Your task to perform on an android device: What's the weather going to be tomorrow? Image 0: 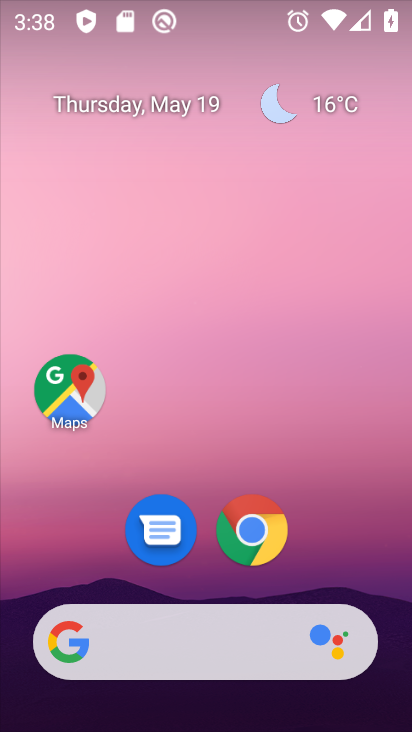
Step 0: drag from (341, 482) to (322, 78)
Your task to perform on an android device: What's the weather going to be tomorrow? Image 1: 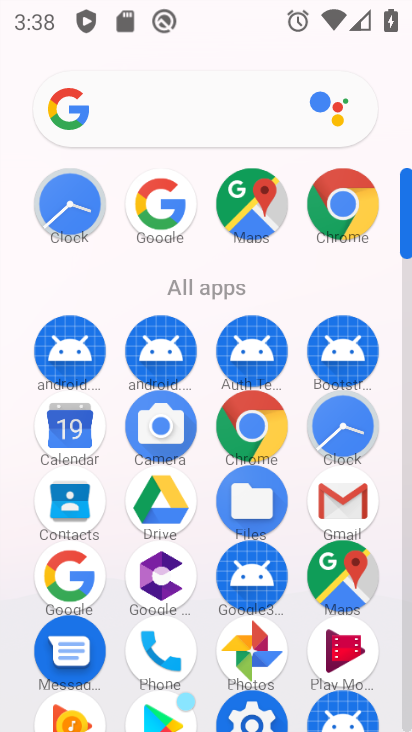
Step 1: click (140, 224)
Your task to perform on an android device: What's the weather going to be tomorrow? Image 2: 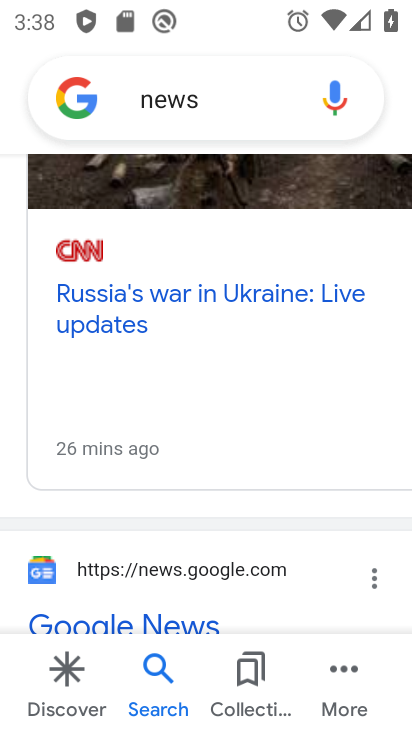
Step 2: click (235, 96)
Your task to perform on an android device: What's the weather going to be tomorrow? Image 3: 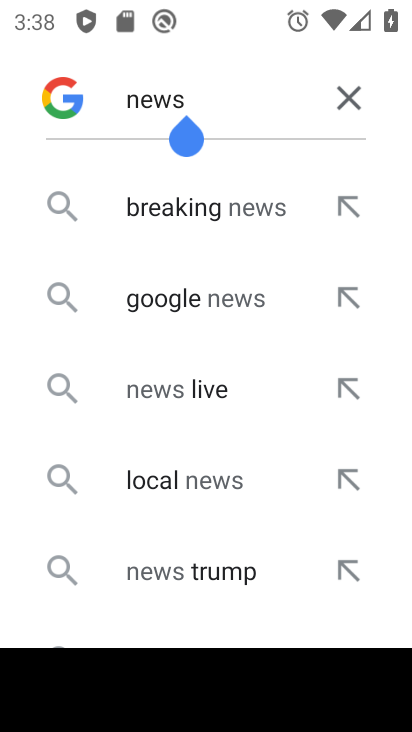
Step 3: click (344, 104)
Your task to perform on an android device: What's the weather going to be tomorrow? Image 4: 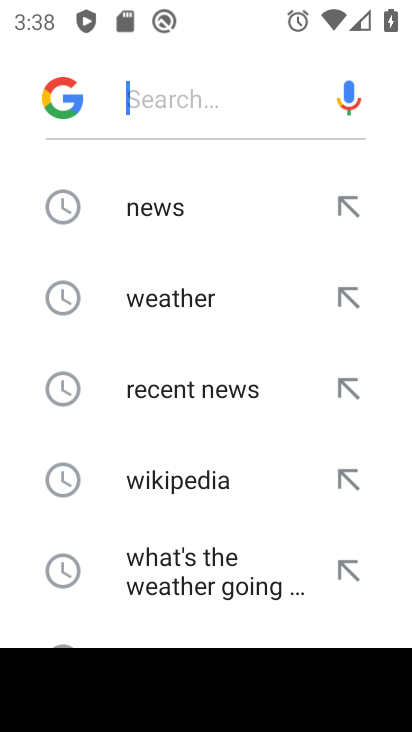
Step 4: click (229, 572)
Your task to perform on an android device: What's the weather going to be tomorrow? Image 5: 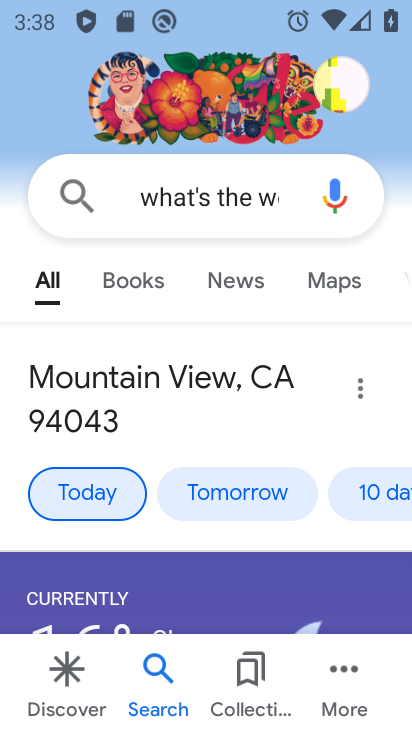
Step 5: click (260, 206)
Your task to perform on an android device: What's the weather going to be tomorrow? Image 6: 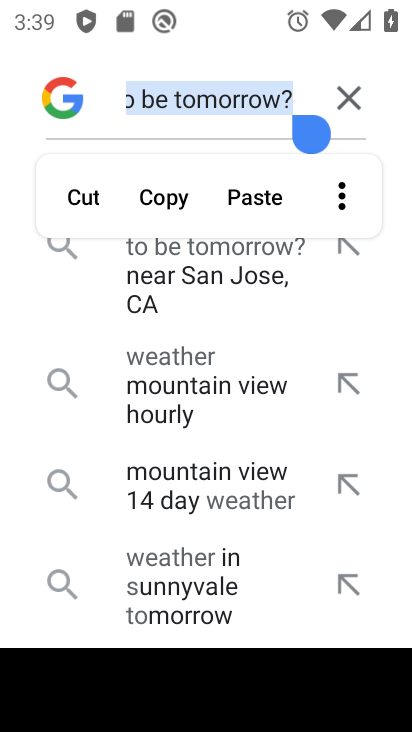
Step 6: task complete